Your task to perform on an android device: turn off smart reply in the gmail app Image 0: 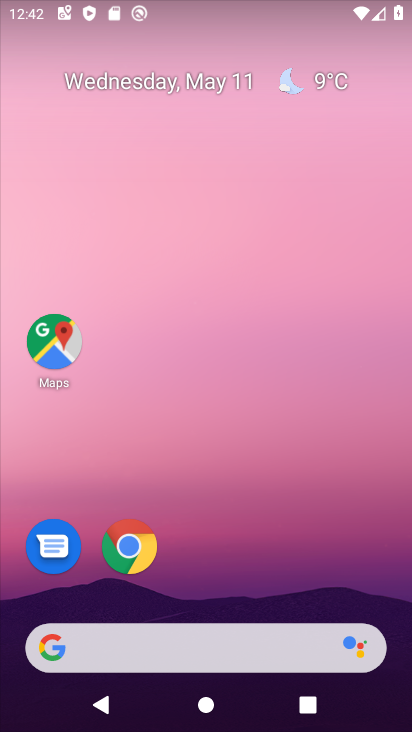
Step 0: drag from (320, 652) to (317, 73)
Your task to perform on an android device: turn off smart reply in the gmail app Image 1: 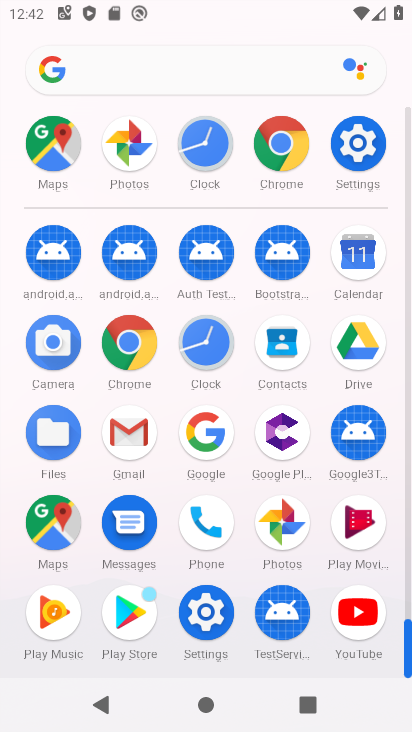
Step 1: click (125, 428)
Your task to perform on an android device: turn off smart reply in the gmail app Image 2: 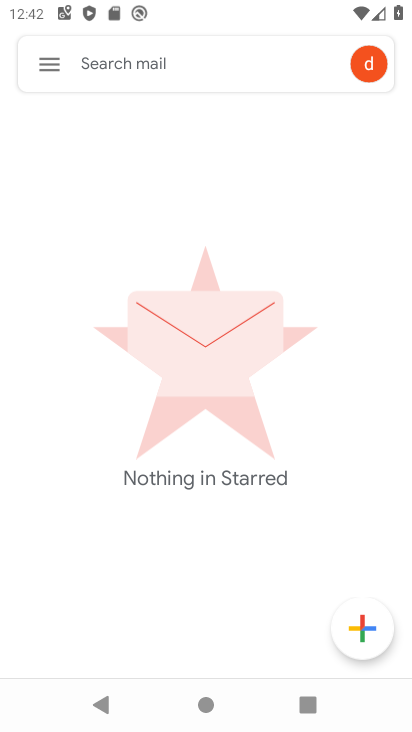
Step 2: click (47, 66)
Your task to perform on an android device: turn off smart reply in the gmail app Image 3: 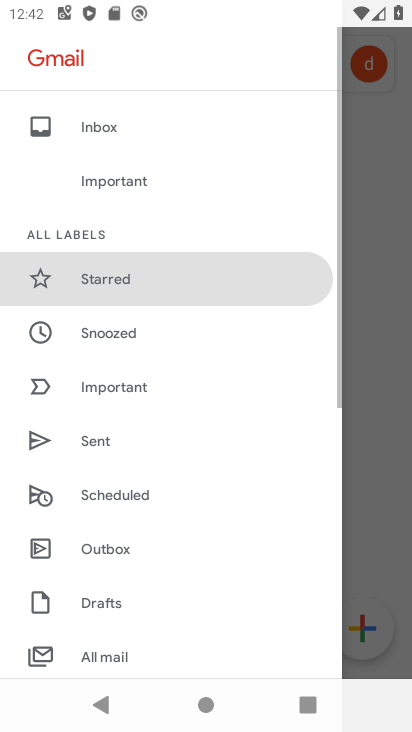
Step 3: drag from (235, 562) to (219, 184)
Your task to perform on an android device: turn off smart reply in the gmail app Image 4: 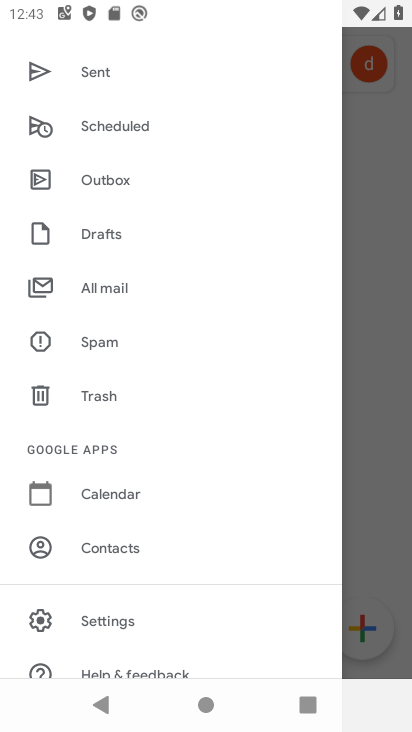
Step 4: drag from (208, 203) to (276, 584)
Your task to perform on an android device: turn off smart reply in the gmail app Image 5: 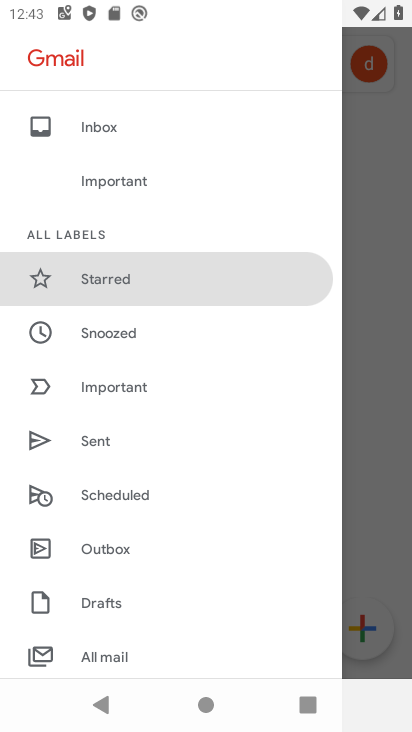
Step 5: drag from (209, 610) to (197, 108)
Your task to perform on an android device: turn off smart reply in the gmail app Image 6: 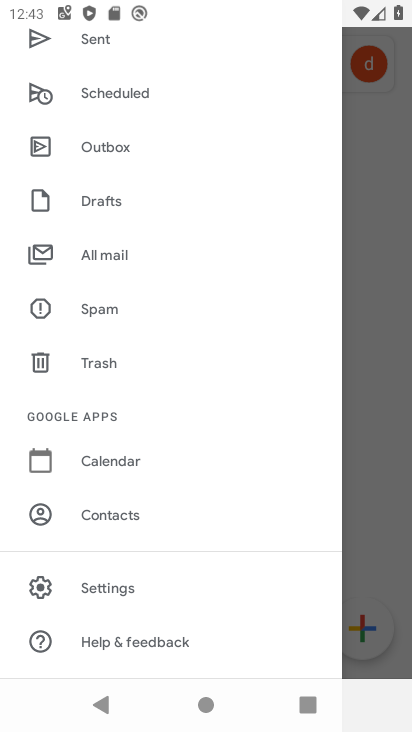
Step 6: click (157, 583)
Your task to perform on an android device: turn off smart reply in the gmail app Image 7: 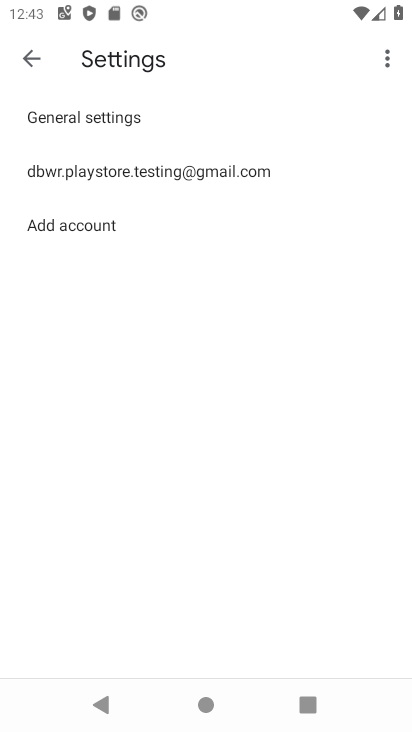
Step 7: click (161, 169)
Your task to perform on an android device: turn off smart reply in the gmail app Image 8: 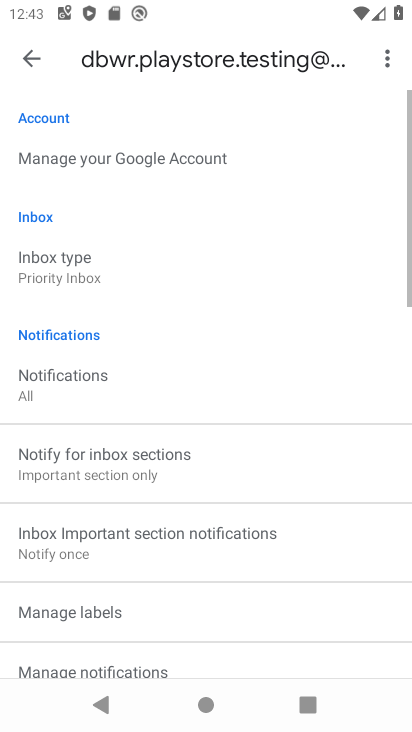
Step 8: drag from (280, 596) to (294, 137)
Your task to perform on an android device: turn off smart reply in the gmail app Image 9: 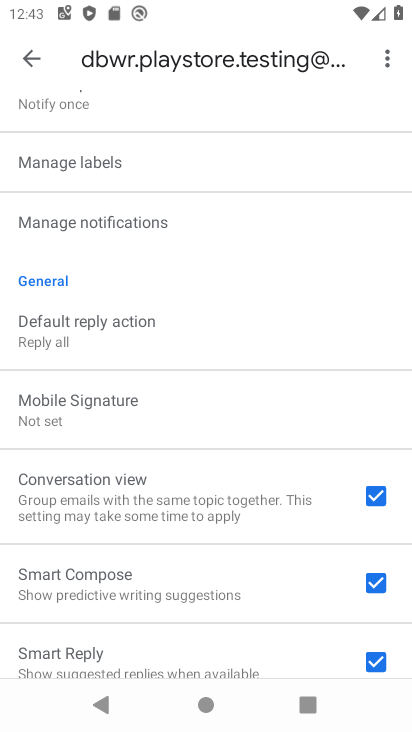
Step 9: drag from (292, 626) to (292, 242)
Your task to perform on an android device: turn off smart reply in the gmail app Image 10: 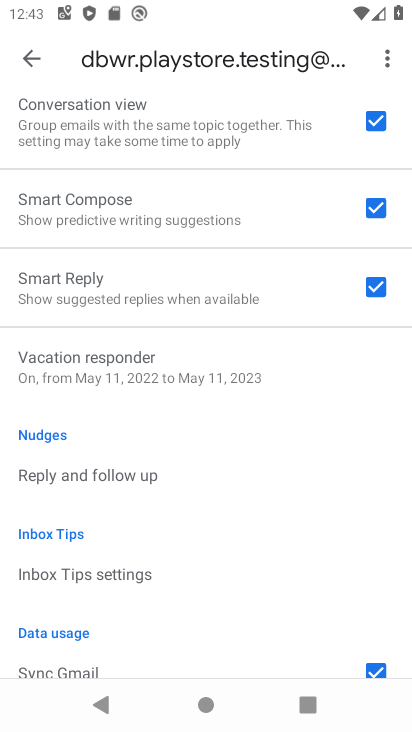
Step 10: click (231, 288)
Your task to perform on an android device: turn off smart reply in the gmail app Image 11: 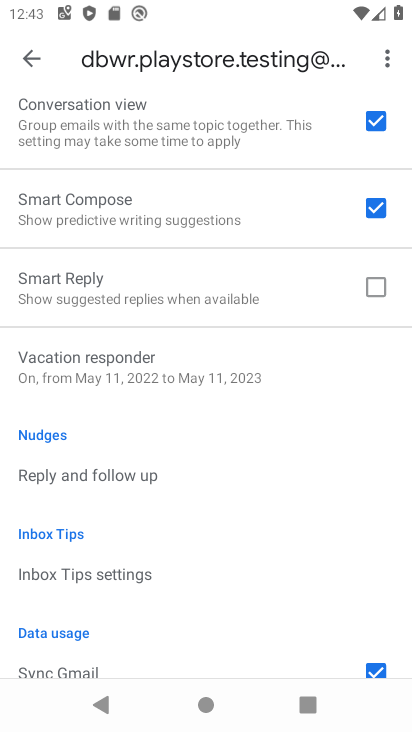
Step 11: task complete